Your task to perform on an android device: Go to Yahoo.com Image 0: 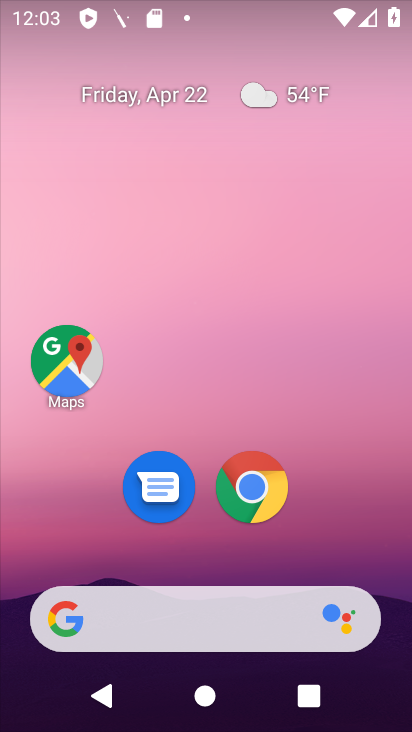
Step 0: drag from (264, 537) to (288, 136)
Your task to perform on an android device: Go to Yahoo.com Image 1: 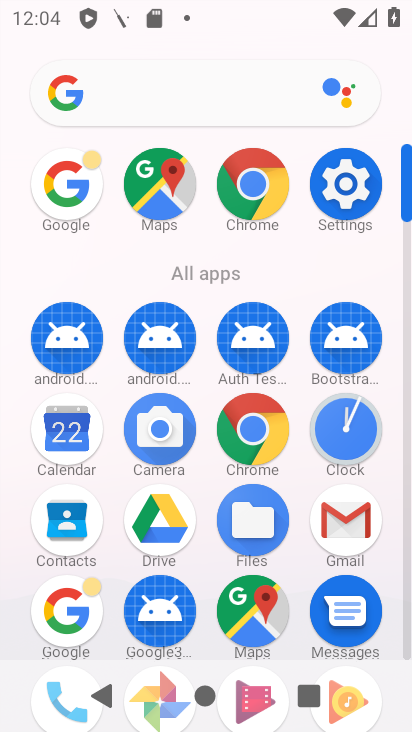
Step 1: click (245, 183)
Your task to perform on an android device: Go to Yahoo.com Image 2: 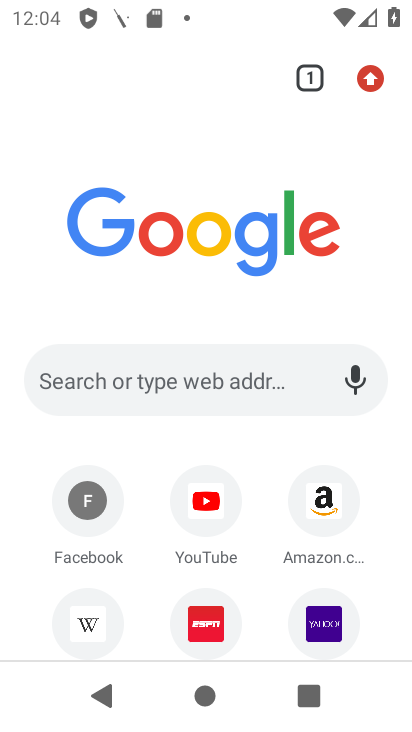
Step 2: click (310, 616)
Your task to perform on an android device: Go to Yahoo.com Image 3: 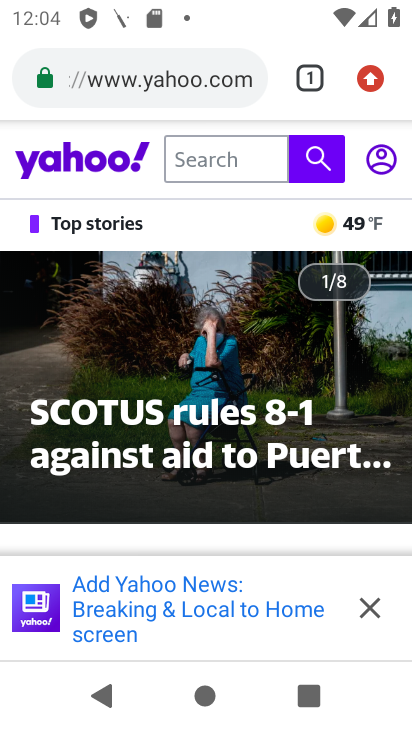
Step 3: task complete